Your task to perform on an android device: Go to calendar. Show me events next week Image 0: 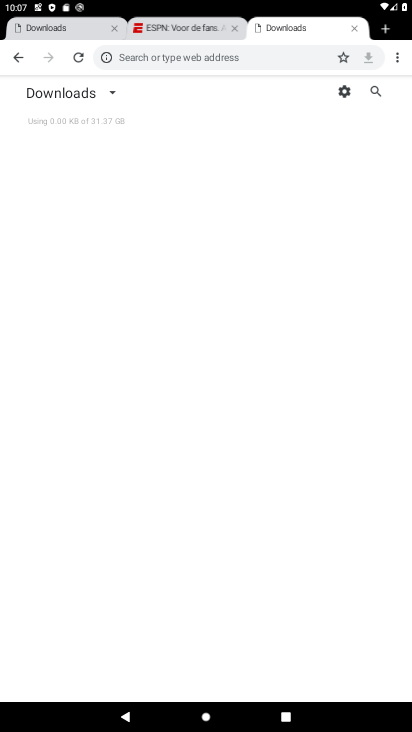
Step 0: press home button
Your task to perform on an android device: Go to calendar. Show me events next week Image 1: 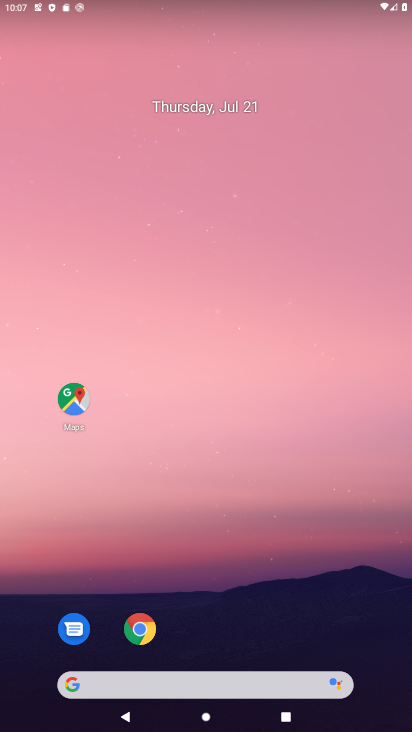
Step 1: click (176, 111)
Your task to perform on an android device: Go to calendar. Show me events next week Image 2: 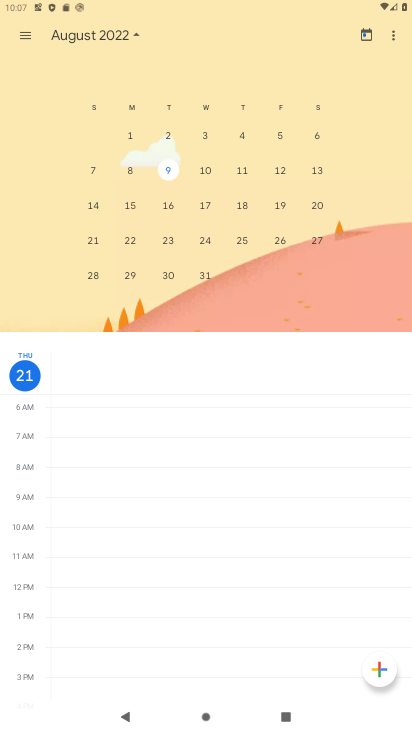
Step 2: drag from (38, 178) to (373, 253)
Your task to perform on an android device: Go to calendar. Show me events next week Image 3: 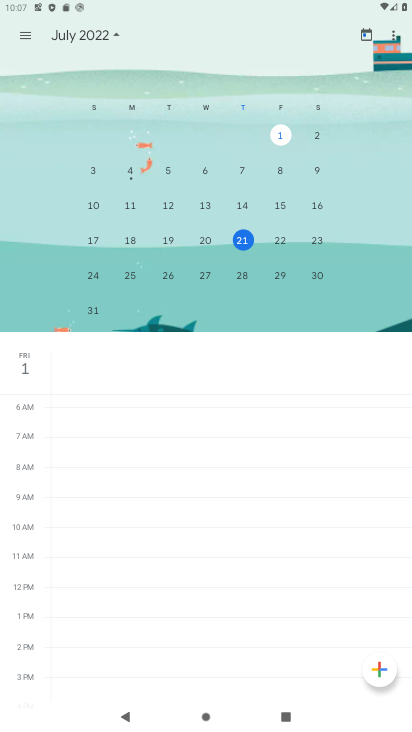
Step 3: click (210, 283)
Your task to perform on an android device: Go to calendar. Show me events next week Image 4: 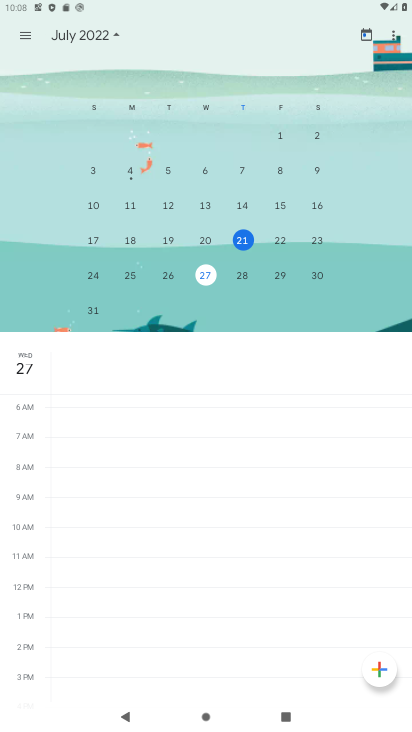
Step 4: task complete